Your task to perform on an android device: Open Reddit.com Image 0: 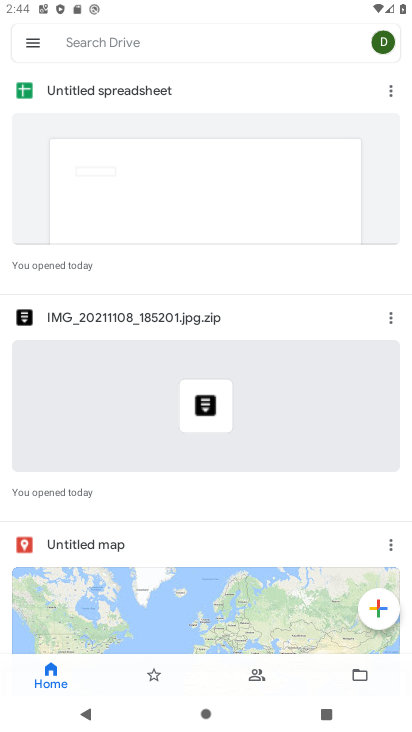
Step 0: press home button
Your task to perform on an android device: Open Reddit.com Image 1: 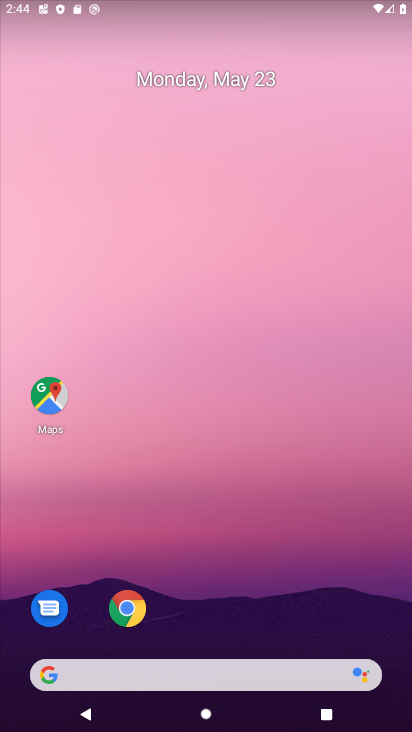
Step 1: click (126, 609)
Your task to perform on an android device: Open Reddit.com Image 2: 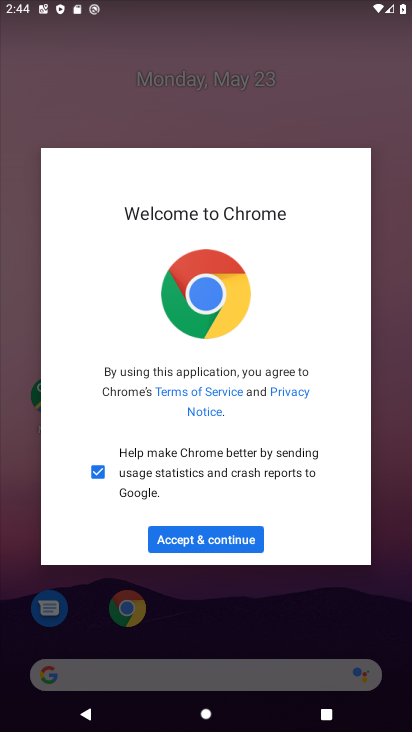
Step 2: click (198, 536)
Your task to perform on an android device: Open Reddit.com Image 3: 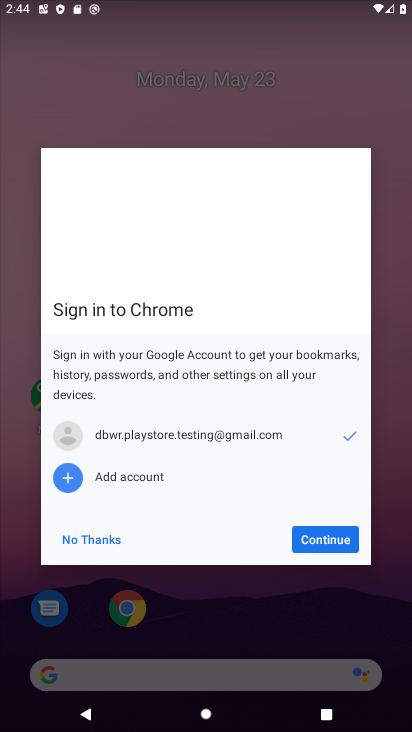
Step 3: click (322, 539)
Your task to perform on an android device: Open Reddit.com Image 4: 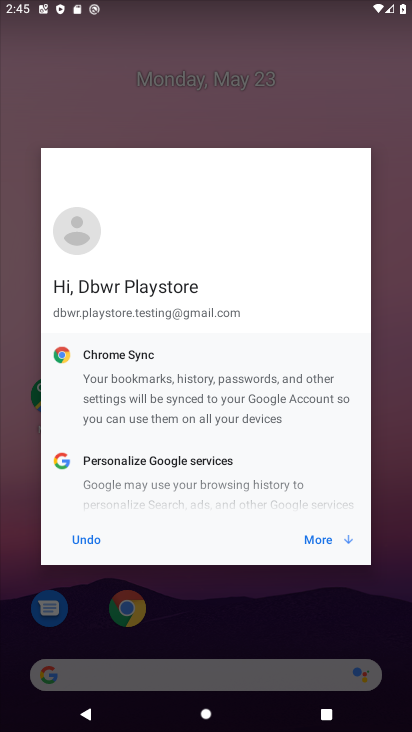
Step 4: click (322, 539)
Your task to perform on an android device: Open Reddit.com Image 5: 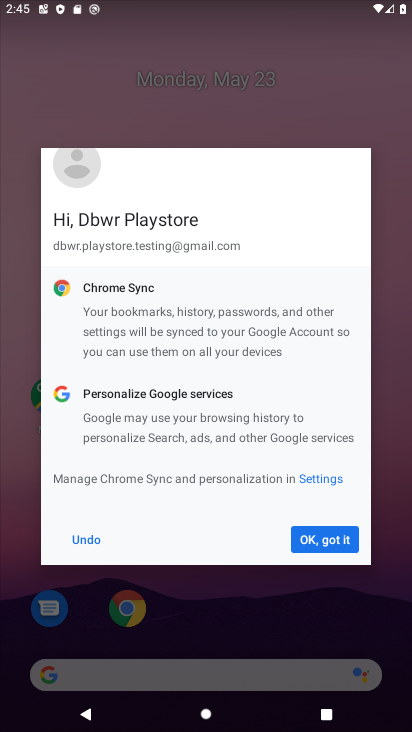
Step 5: click (322, 539)
Your task to perform on an android device: Open Reddit.com Image 6: 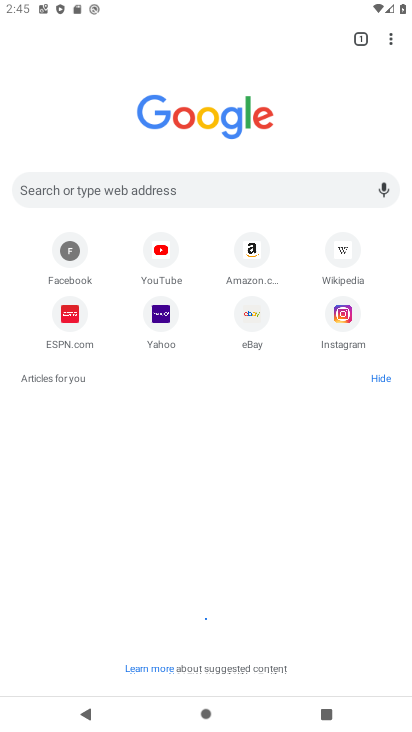
Step 6: click (231, 191)
Your task to perform on an android device: Open Reddit.com Image 7: 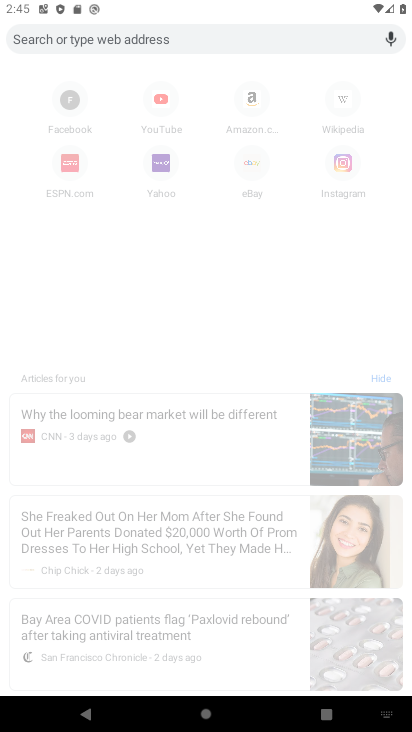
Step 7: type "Reddit.com"
Your task to perform on an android device: Open Reddit.com Image 8: 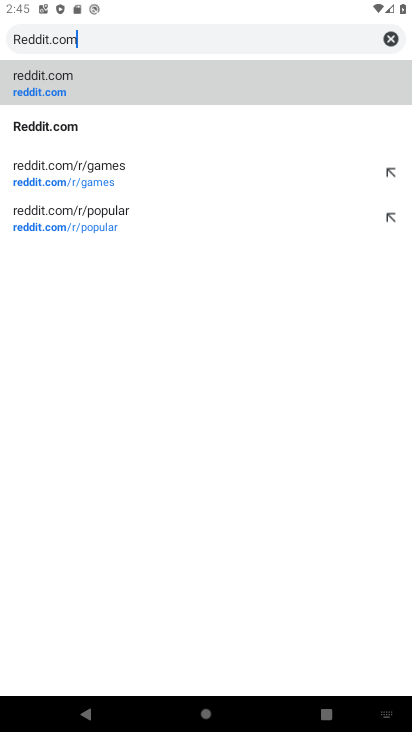
Step 8: click (27, 129)
Your task to perform on an android device: Open Reddit.com Image 9: 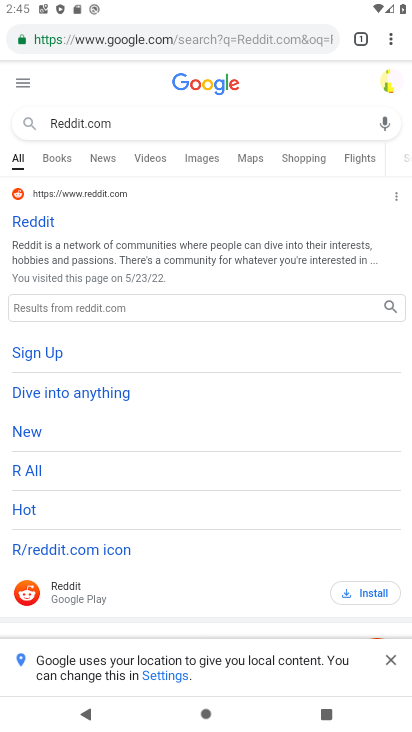
Step 9: click (32, 229)
Your task to perform on an android device: Open Reddit.com Image 10: 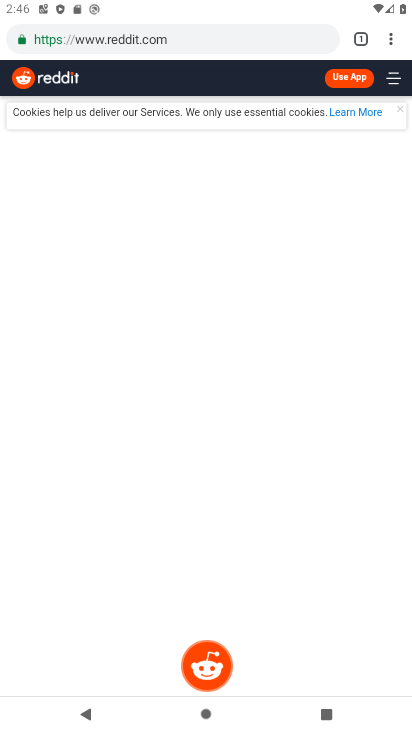
Step 10: task complete